Your task to perform on an android device: toggle notifications settings in the gmail app Image 0: 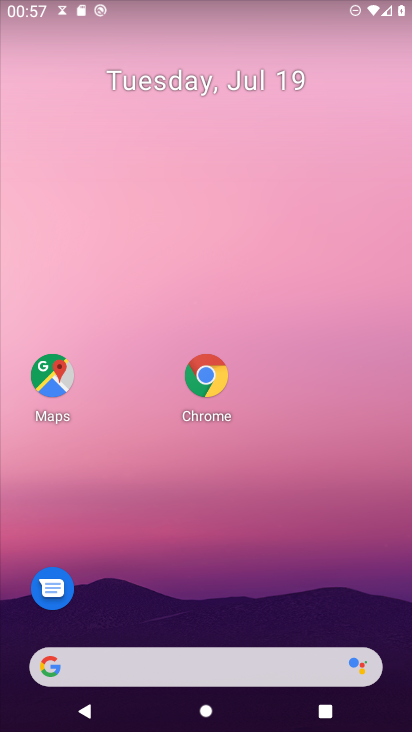
Step 0: press home button
Your task to perform on an android device: toggle notifications settings in the gmail app Image 1: 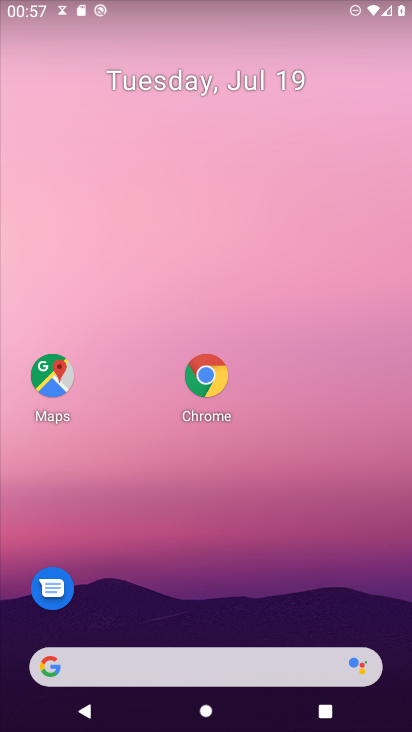
Step 1: drag from (276, 567) to (256, 47)
Your task to perform on an android device: toggle notifications settings in the gmail app Image 2: 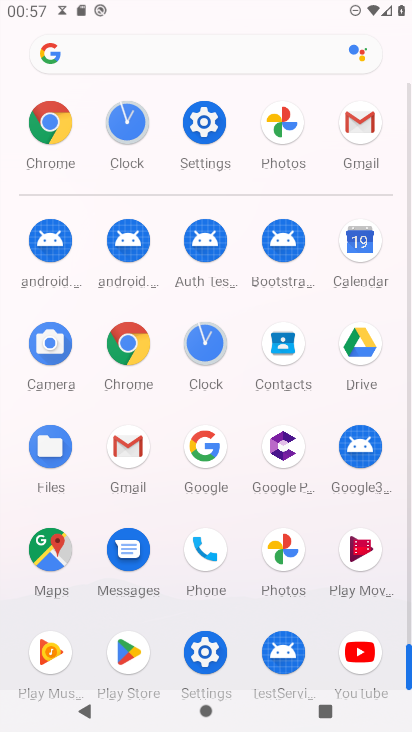
Step 2: click (369, 121)
Your task to perform on an android device: toggle notifications settings in the gmail app Image 3: 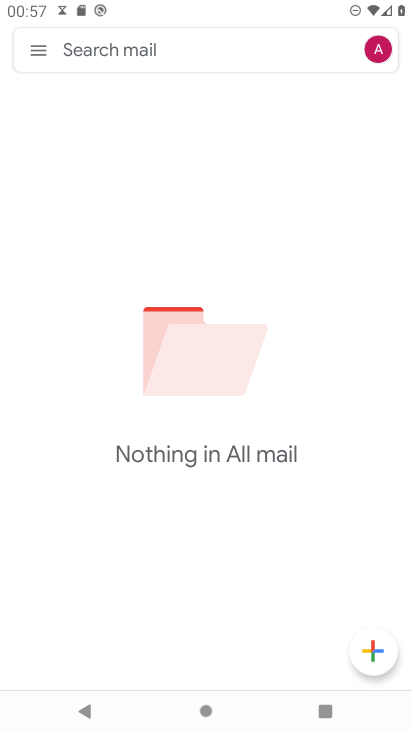
Step 3: click (42, 49)
Your task to perform on an android device: toggle notifications settings in the gmail app Image 4: 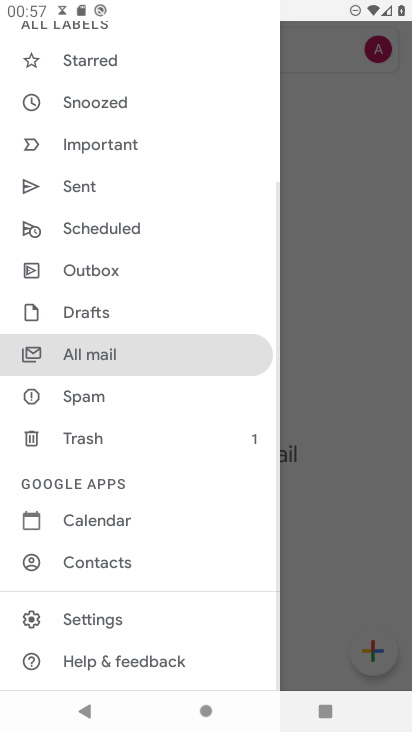
Step 4: click (69, 618)
Your task to perform on an android device: toggle notifications settings in the gmail app Image 5: 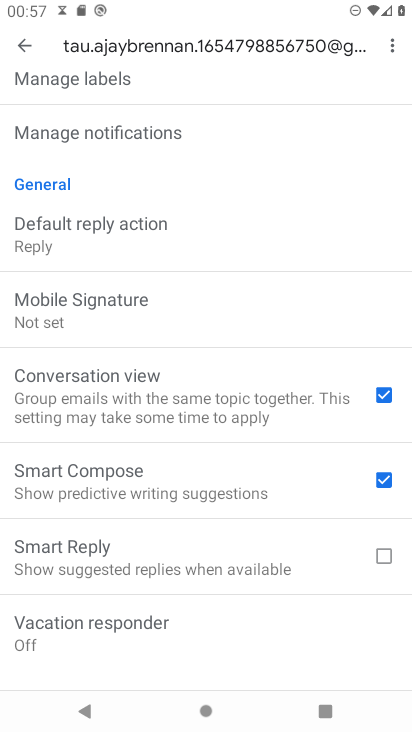
Step 5: click (76, 135)
Your task to perform on an android device: toggle notifications settings in the gmail app Image 6: 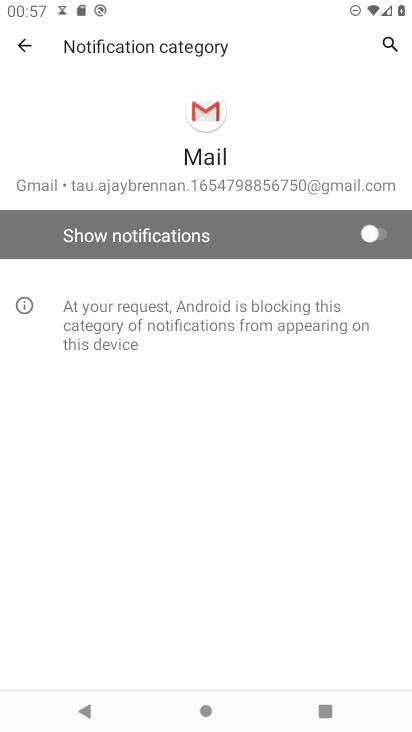
Step 6: click (373, 232)
Your task to perform on an android device: toggle notifications settings in the gmail app Image 7: 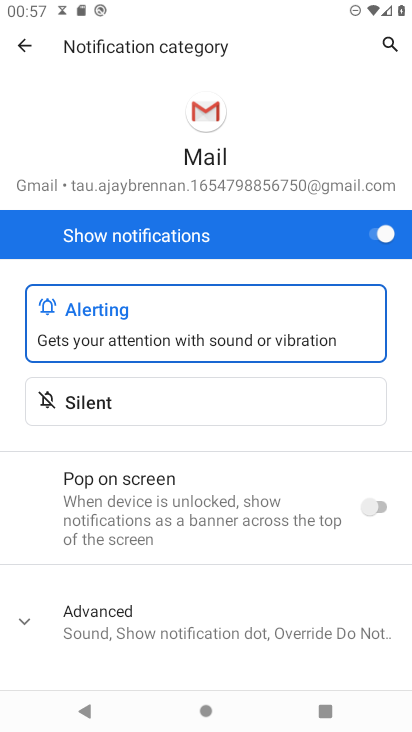
Step 7: task complete